Your task to perform on an android device: What's the weather like in Beijing? Image 0: 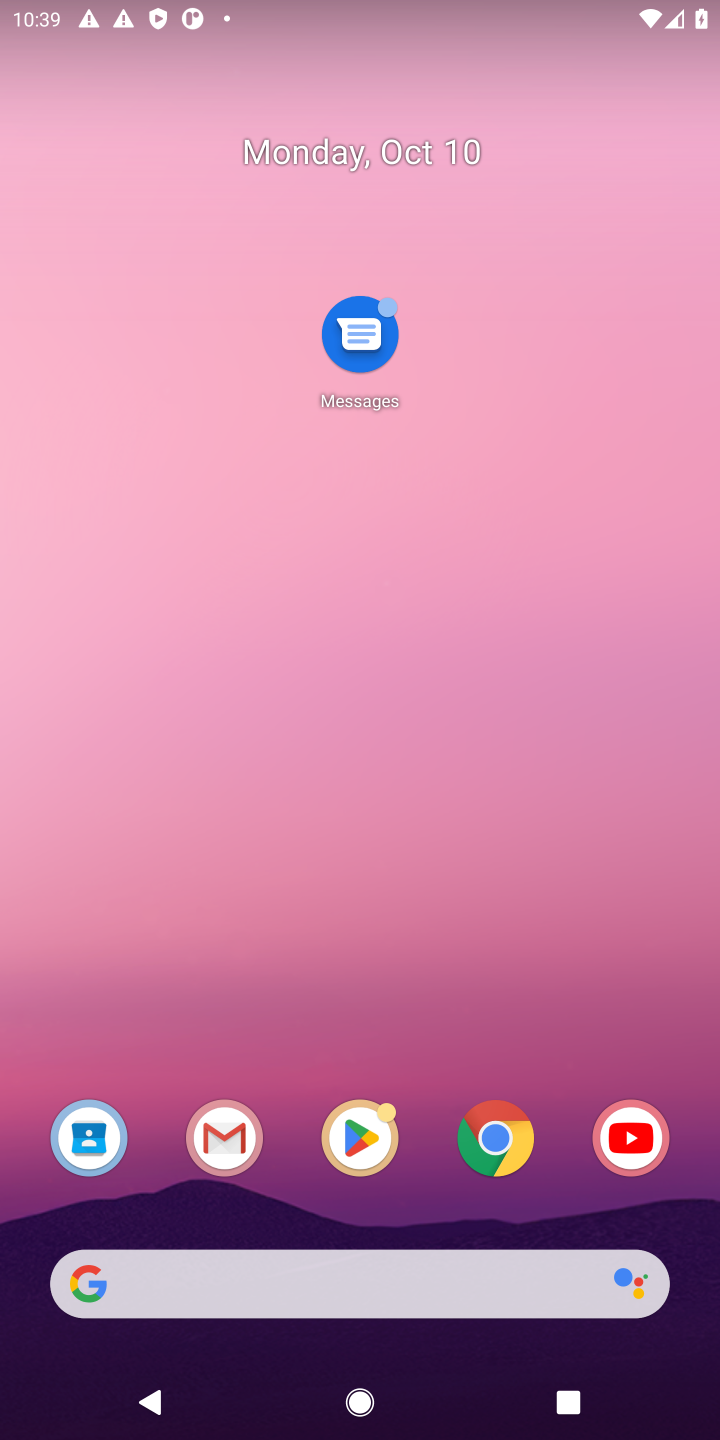
Step 0: click (512, 1153)
Your task to perform on an android device: What's the weather like in Beijing? Image 1: 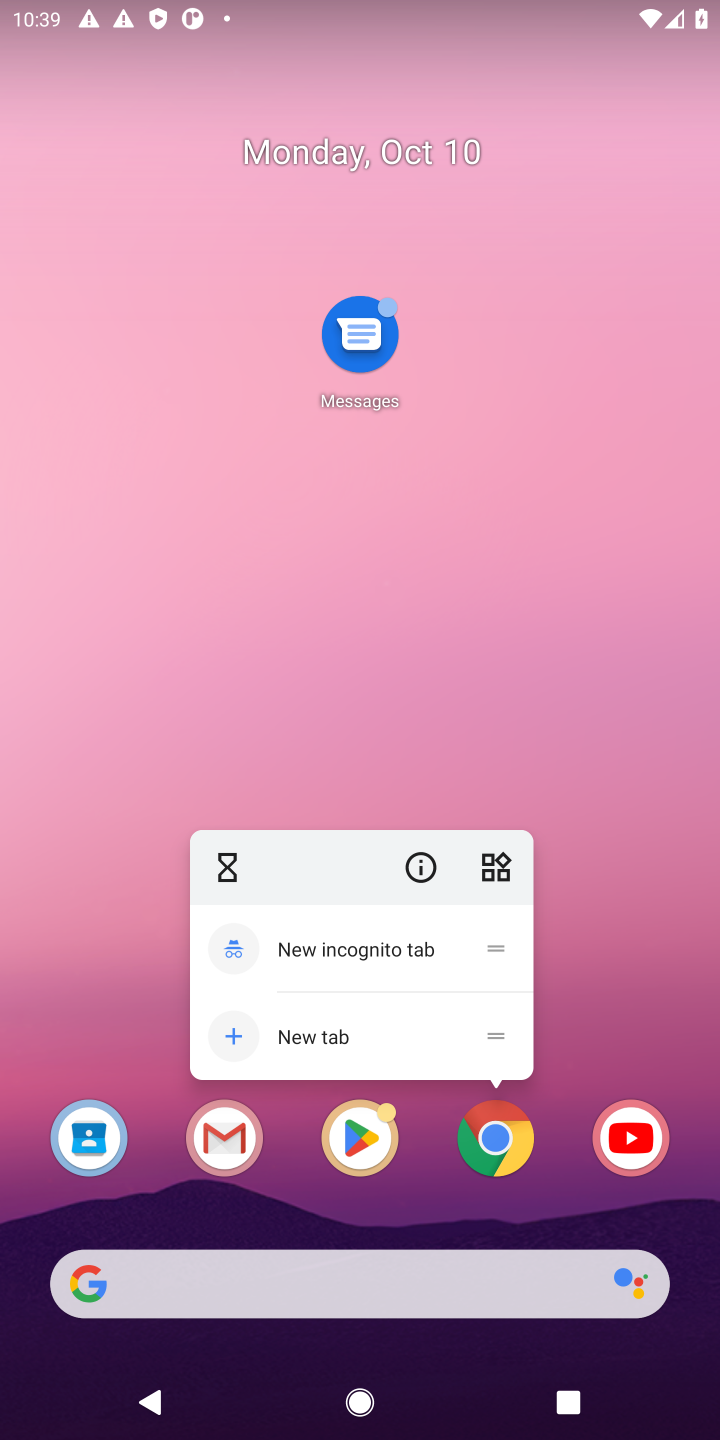
Step 1: click (492, 1159)
Your task to perform on an android device: What's the weather like in Beijing? Image 2: 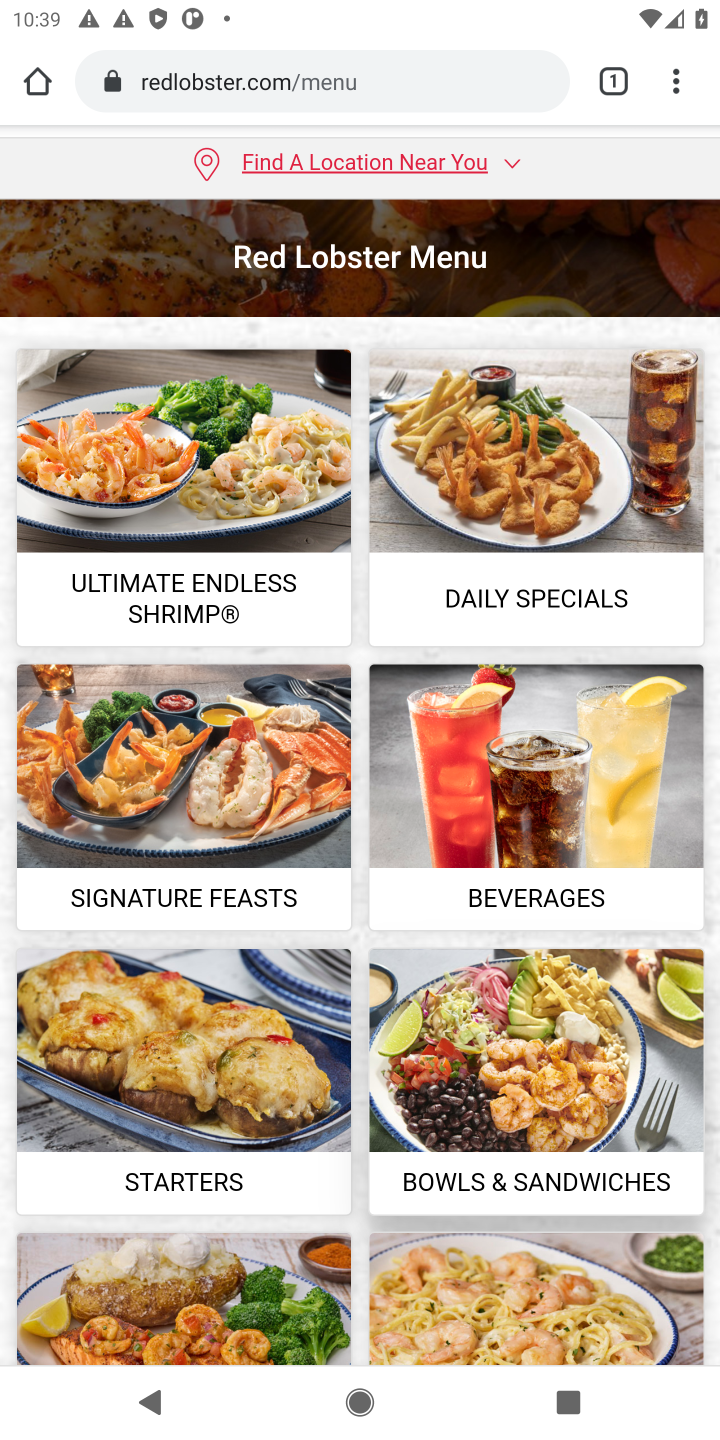
Step 2: click (379, 72)
Your task to perform on an android device: What's the weather like in Beijing? Image 3: 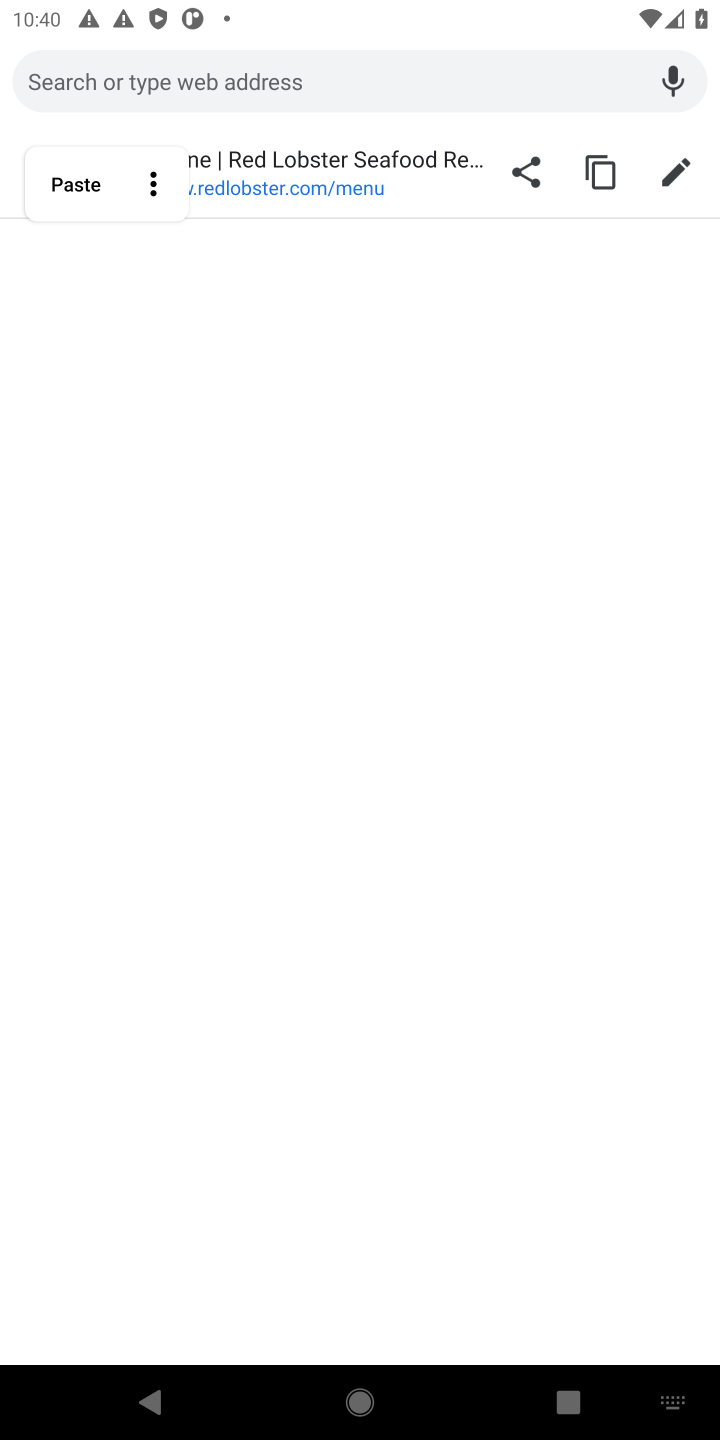
Step 3: type "weather in Beijing"
Your task to perform on an android device: What's the weather like in Beijing? Image 4: 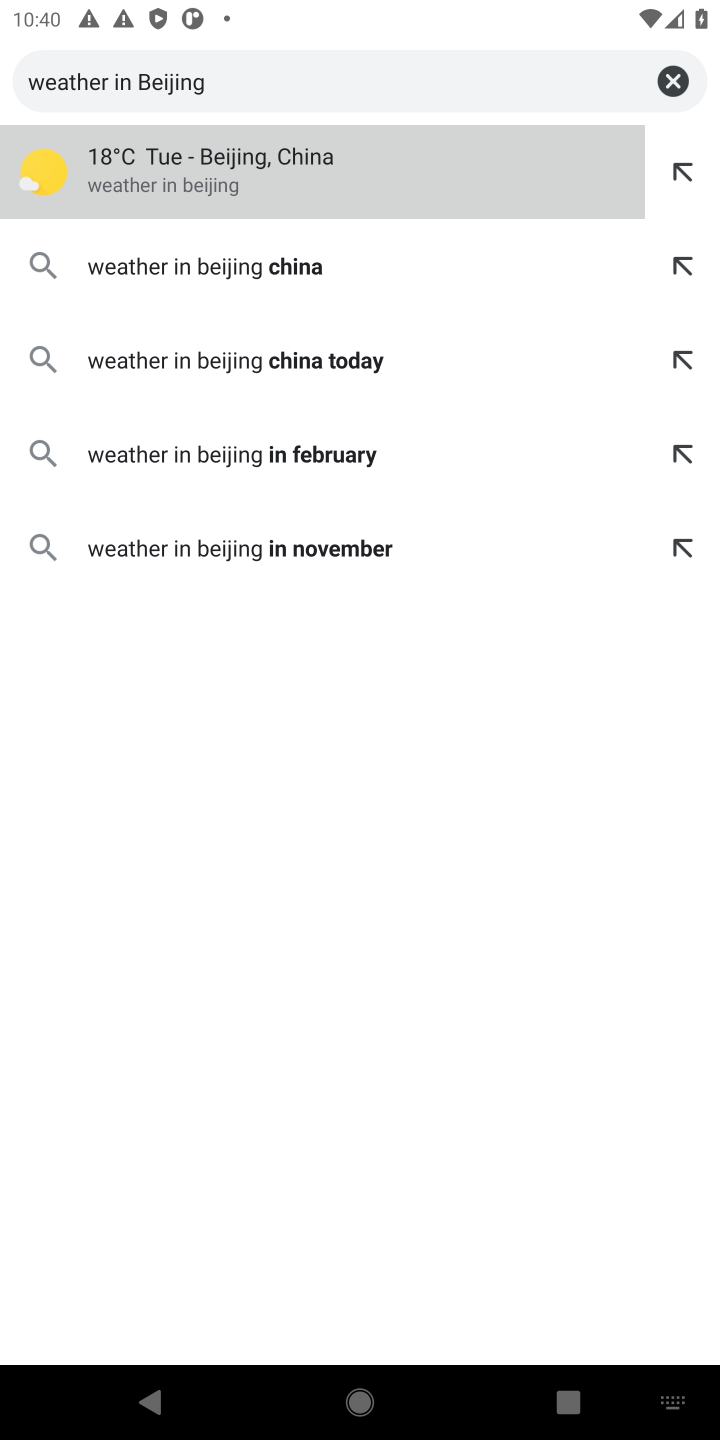
Step 4: press enter
Your task to perform on an android device: What's the weather like in Beijing? Image 5: 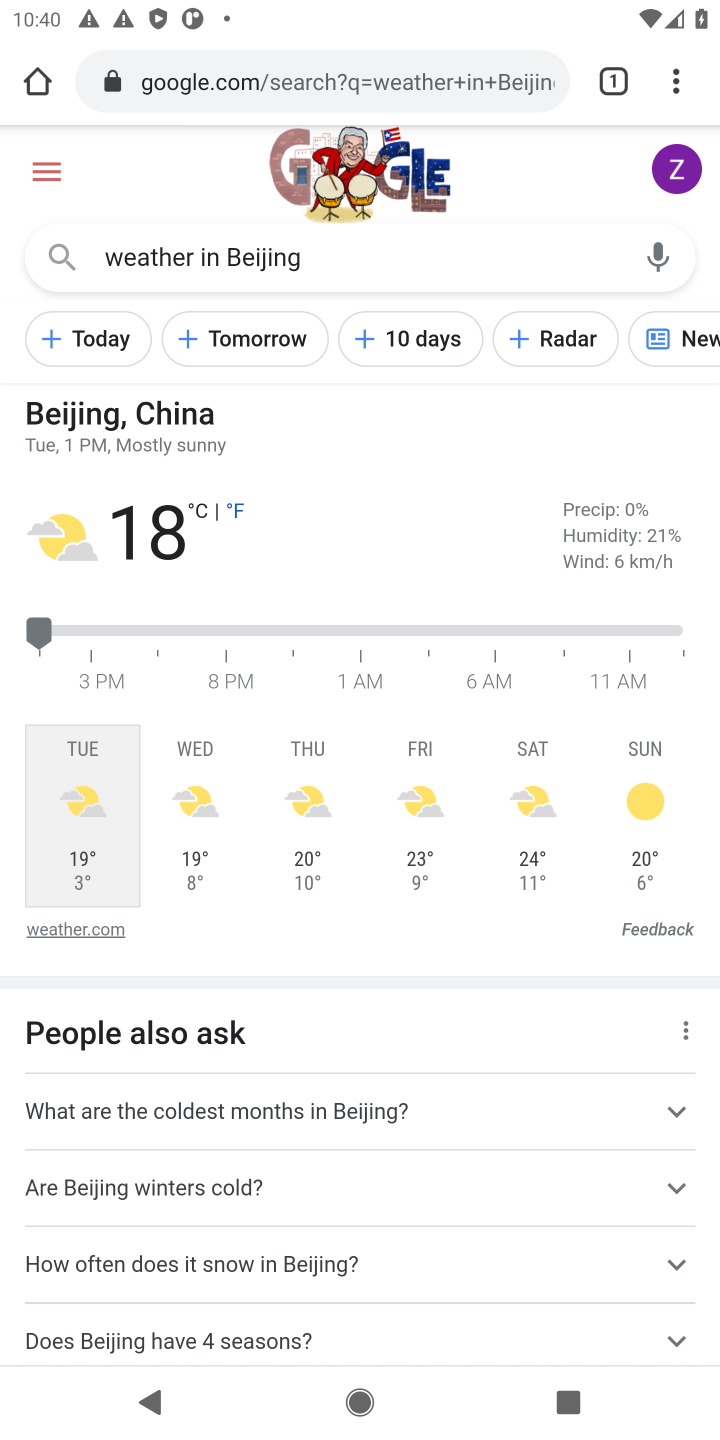
Step 5: task complete